Your task to perform on an android device: turn on airplane mode Image 0: 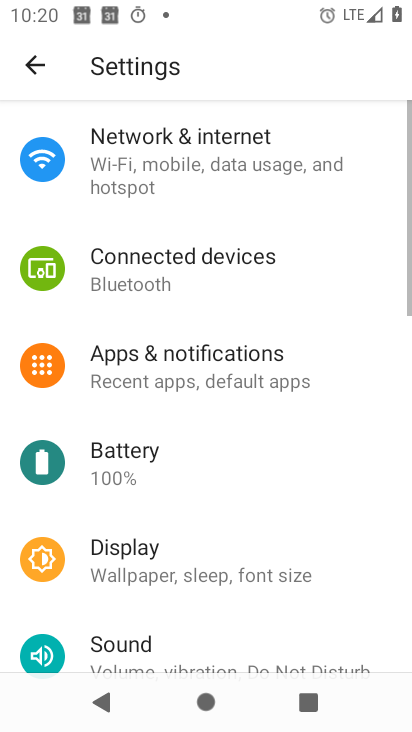
Step 0: press home button
Your task to perform on an android device: turn on airplane mode Image 1: 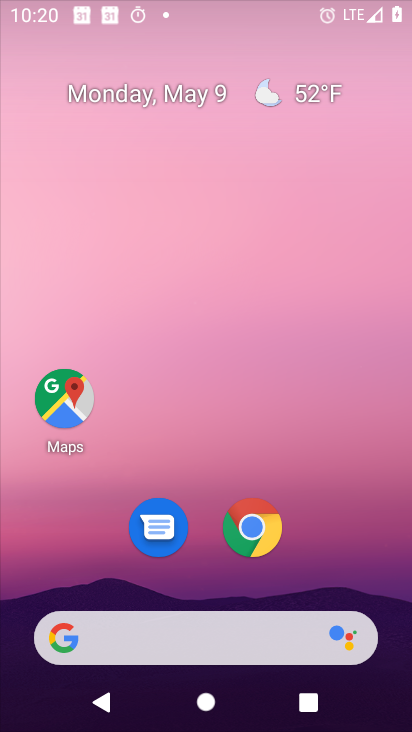
Step 1: drag from (216, 570) to (266, 60)
Your task to perform on an android device: turn on airplane mode Image 2: 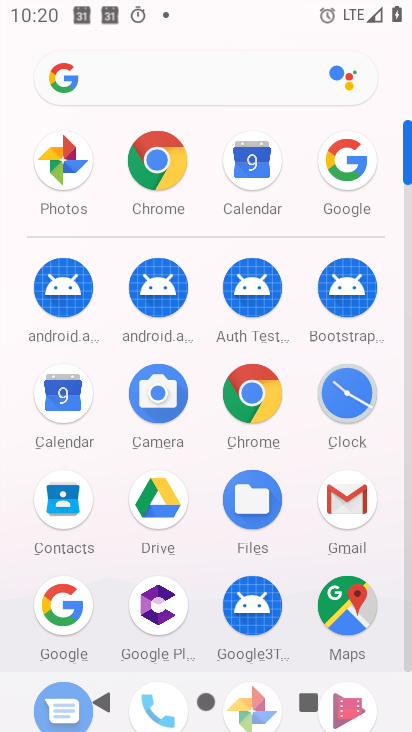
Step 2: drag from (112, 548) to (145, 94)
Your task to perform on an android device: turn on airplane mode Image 3: 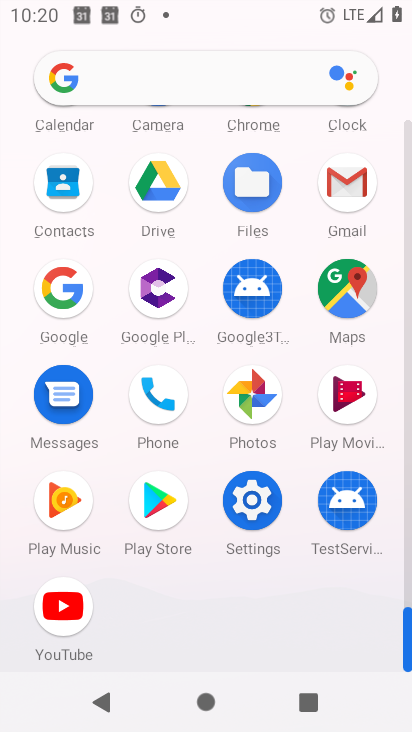
Step 3: click (255, 504)
Your task to perform on an android device: turn on airplane mode Image 4: 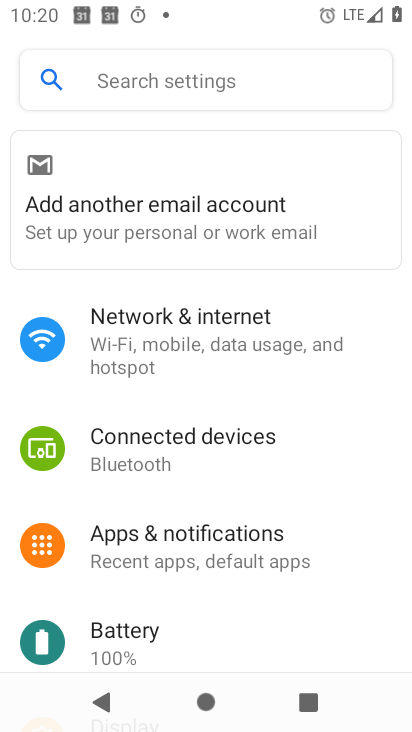
Step 4: click (200, 329)
Your task to perform on an android device: turn on airplane mode Image 5: 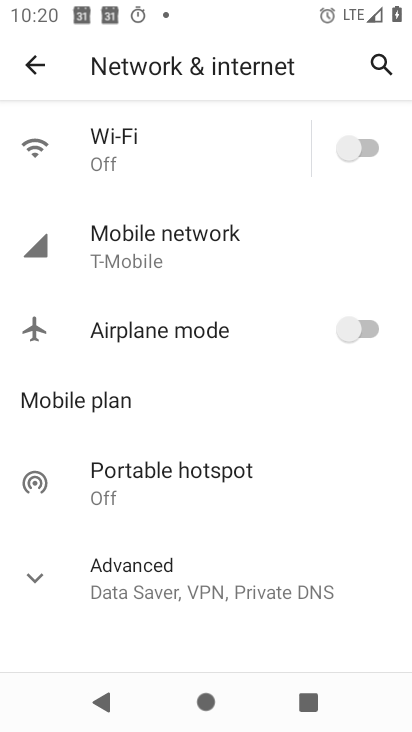
Step 5: click (366, 323)
Your task to perform on an android device: turn on airplane mode Image 6: 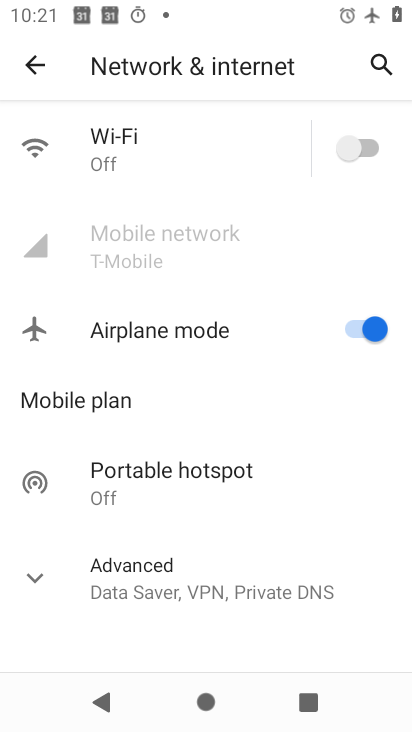
Step 6: task complete